Your task to perform on an android device: turn off translation in the chrome app Image 0: 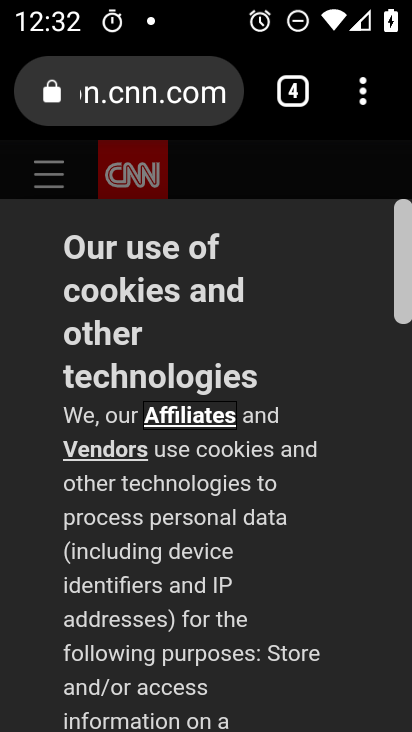
Step 0: press home button
Your task to perform on an android device: turn off translation in the chrome app Image 1: 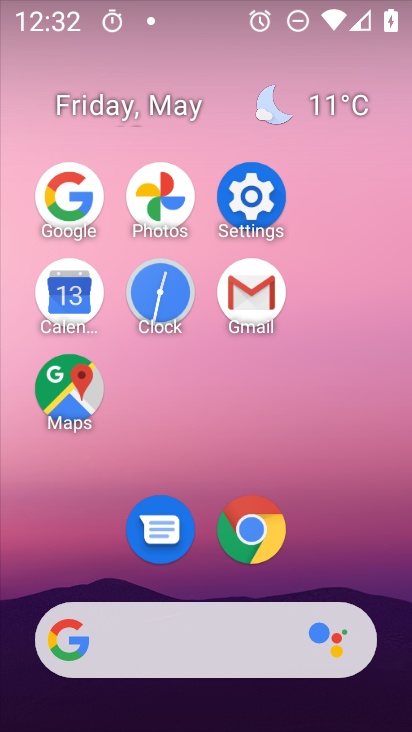
Step 1: click (264, 519)
Your task to perform on an android device: turn off translation in the chrome app Image 2: 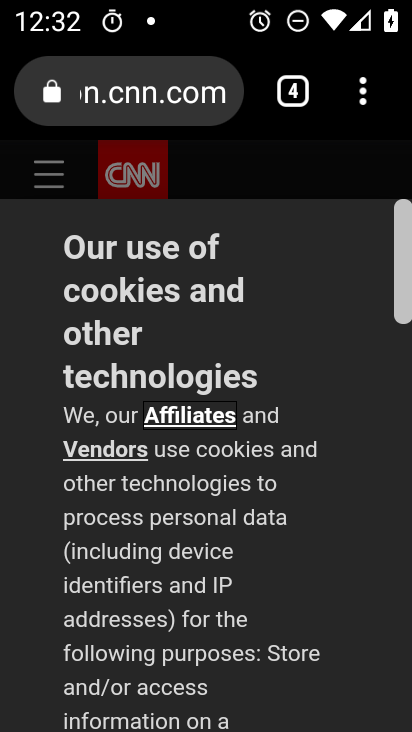
Step 2: click (363, 95)
Your task to perform on an android device: turn off translation in the chrome app Image 3: 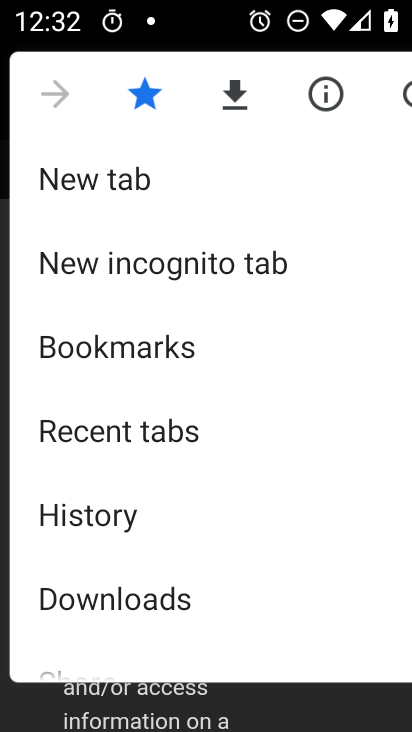
Step 3: drag from (169, 541) to (223, 262)
Your task to perform on an android device: turn off translation in the chrome app Image 4: 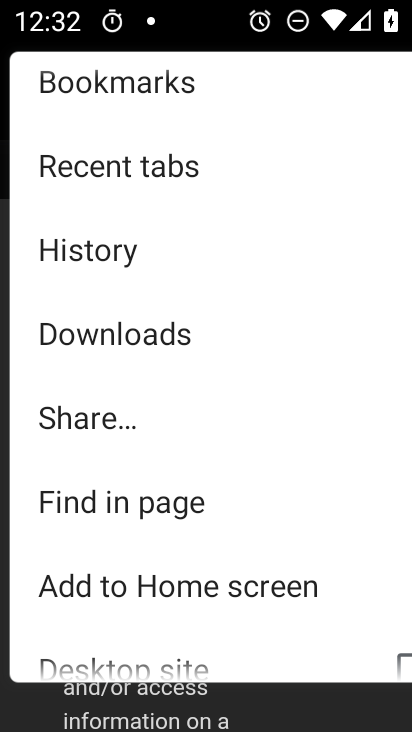
Step 4: drag from (293, 530) to (280, 287)
Your task to perform on an android device: turn off translation in the chrome app Image 5: 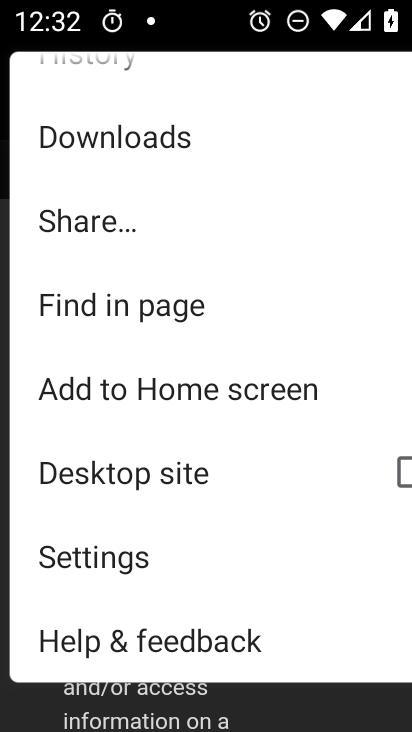
Step 5: click (280, 286)
Your task to perform on an android device: turn off translation in the chrome app Image 6: 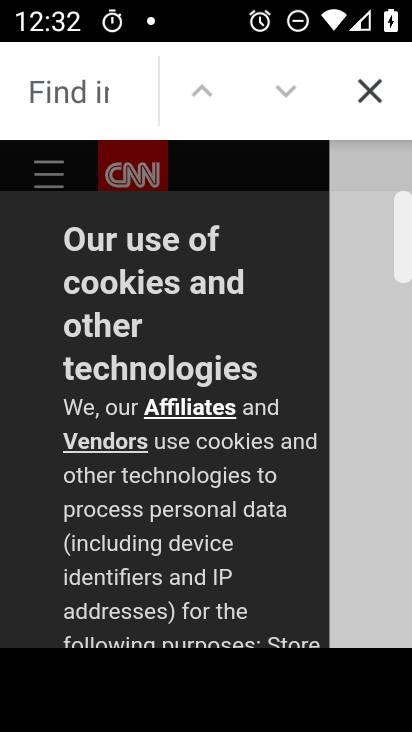
Step 6: click (388, 99)
Your task to perform on an android device: turn off translation in the chrome app Image 7: 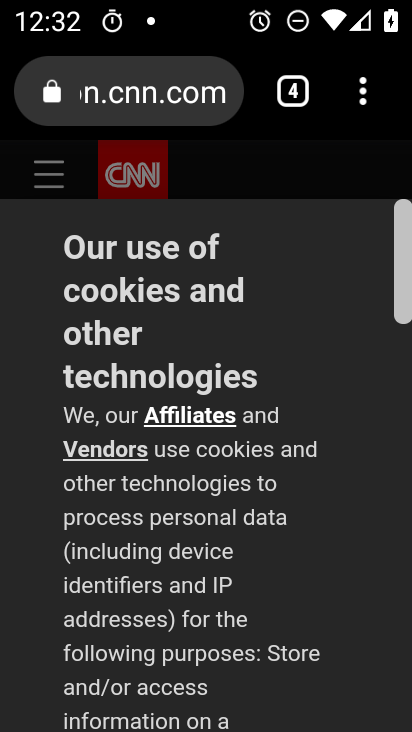
Step 7: click (388, 99)
Your task to perform on an android device: turn off translation in the chrome app Image 8: 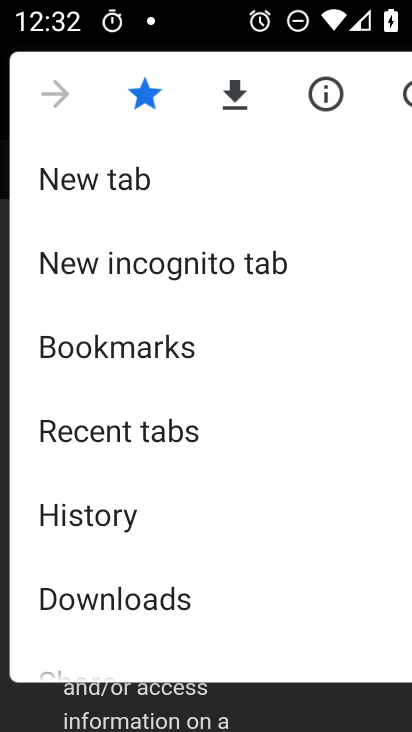
Step 8: drag from (267, 536) to (289, 188)
Your task to perform on an android device: turn off translation in the chrome app Image 9: 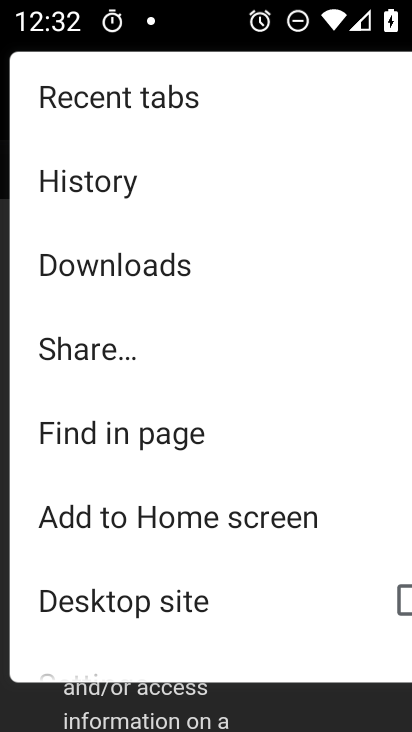
Step 9: drag from (257, 442) to (302, 211)
Your task to perform on an android device: turn off translation in the chrome app Image 10: 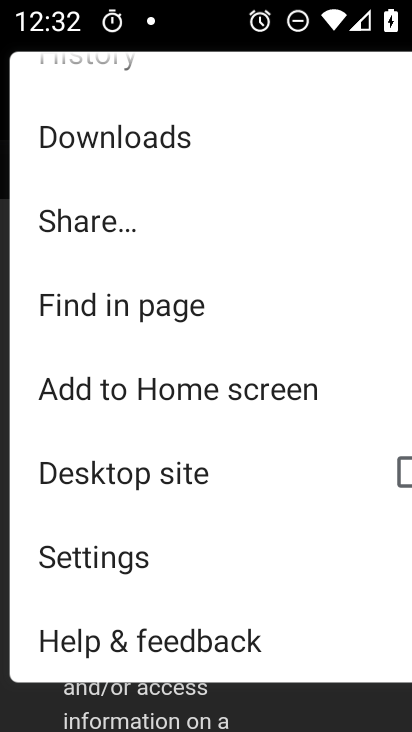
Step 10: click (183, 563)
Your task to perform on an android device: turn off translation in the chrome app Image 11: 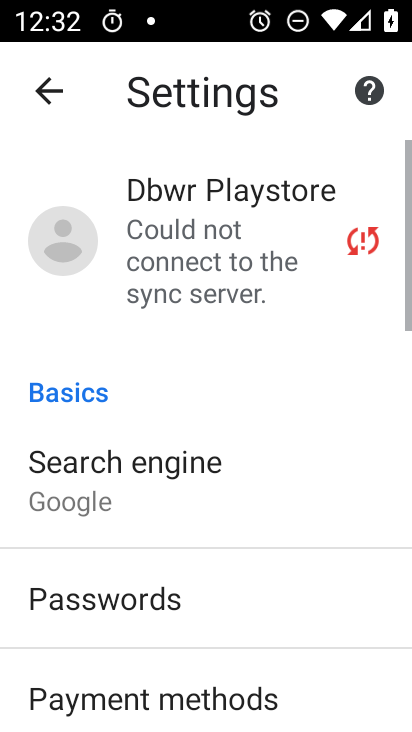
Step 11: drag from (182, 562) to (212, 213)
Your task to perform on an android device: turn off translation in the chrome app Image 12: 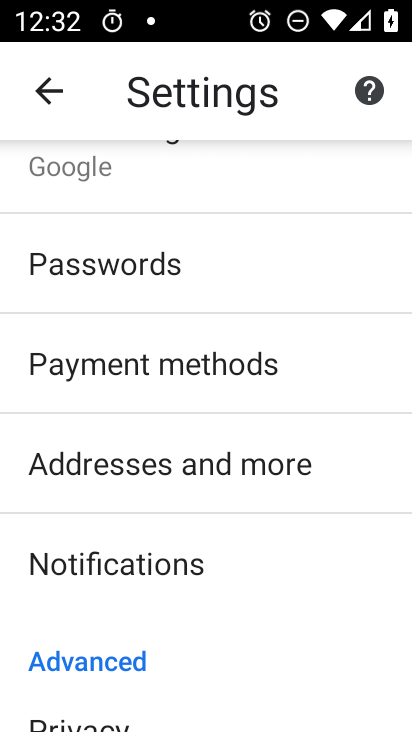
Step 12: drag from (184, 557) to (231, 195)
Your task to perform on an android device: turn off translation in the chrome app Image 13: 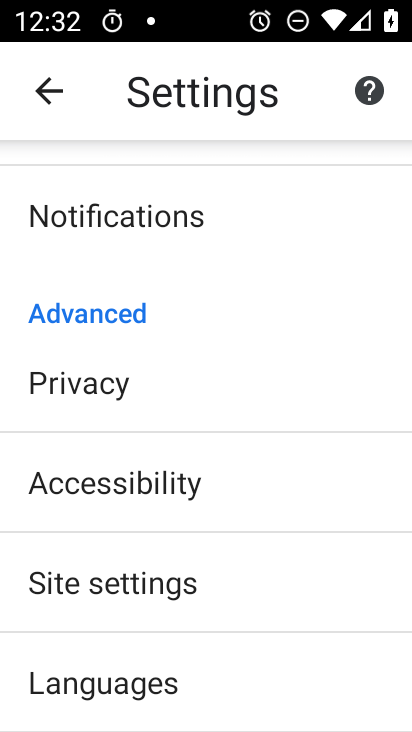
Step 13: click (202, 656)
Your task to perform on an android device: turn off translation in the chrome app Image 14: 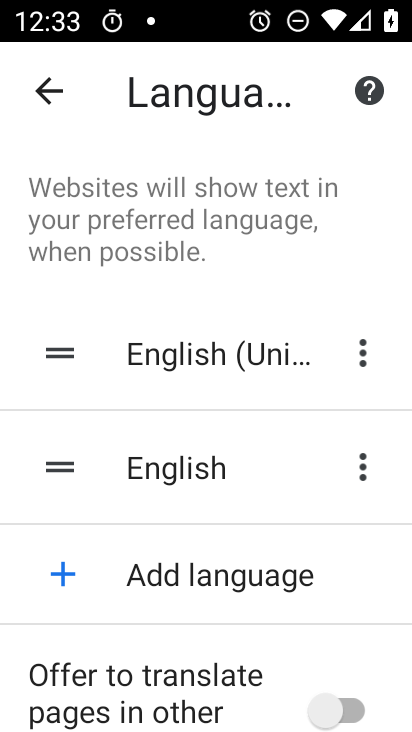
Step 14: task complete